Your task to perform on an android device: Show me the alarms in the clock app Image 0: 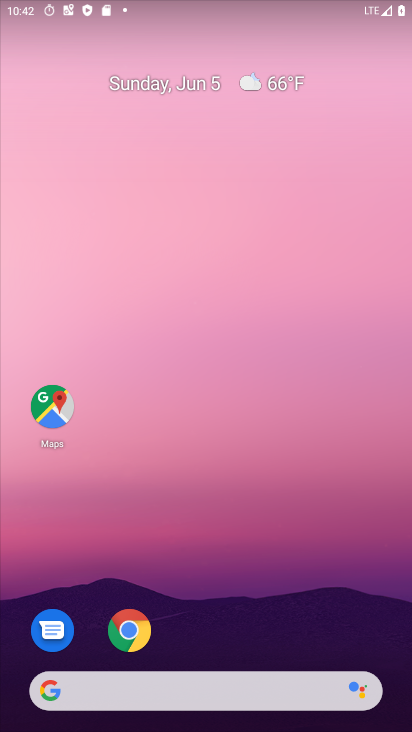
Step 0: drag from (226, 262) to (227, 72)
Your task to perform on an android device: Show me the alarms in the clock app Image 1: 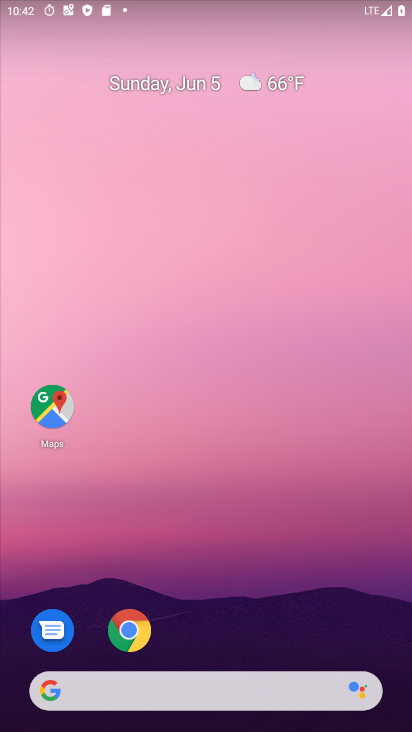
Step 1: drag from (217, 573) to (247, 6)
Your task to perform on an android device: Show me the alarms in the clock app Image 2: 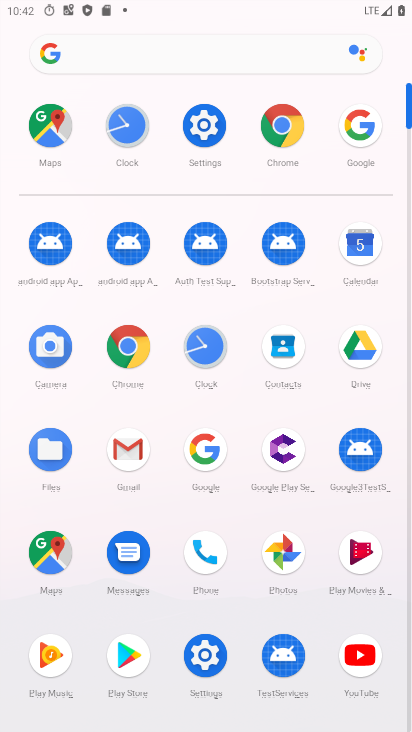
Step 2: click (206, 350)
Your task to perform on an android device: Show me the alarms in the clock app Image 3: 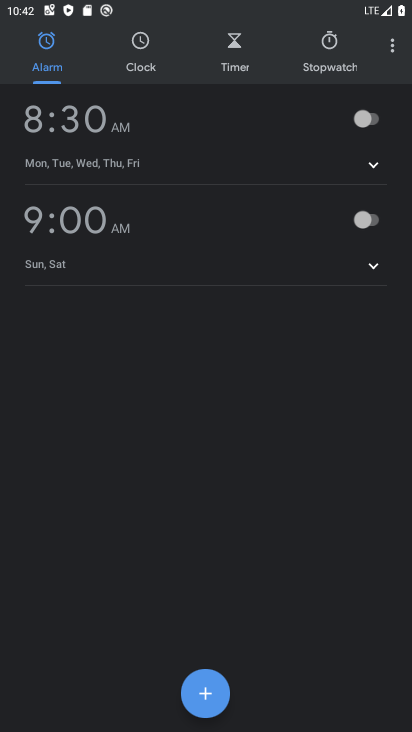
Step 3: task complete